Your task to perform on an android device: check battery use Image 0: 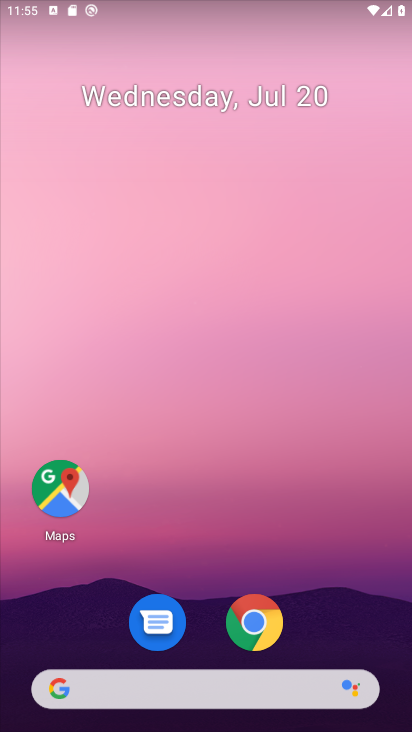
Step 0: press home button
Your task to perform on an android device: check battery use Image 1: 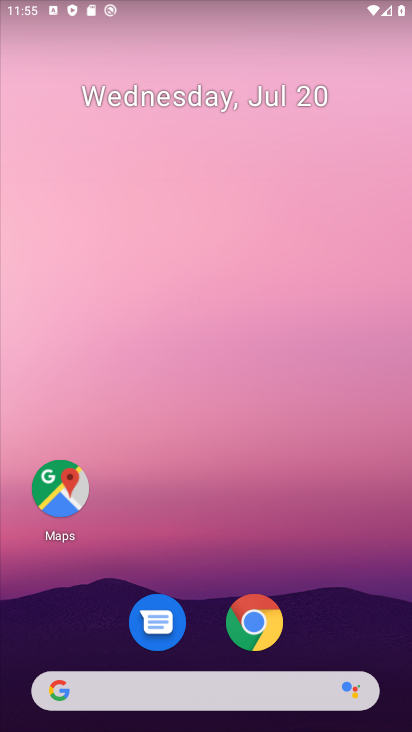
Step 1: drag from (208, 578) to (239, 77)
Your task to perform on an android device: check battery use Image 2: 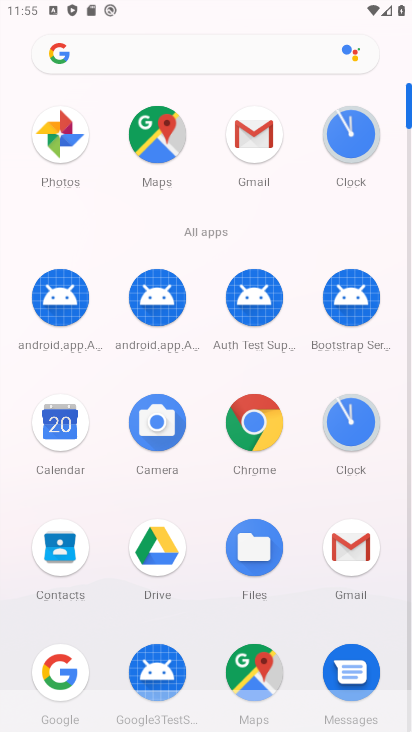
Step 2: drag from (200, 616) to (221, 142)
Your task to perform on an android device: check battery use Image 3: 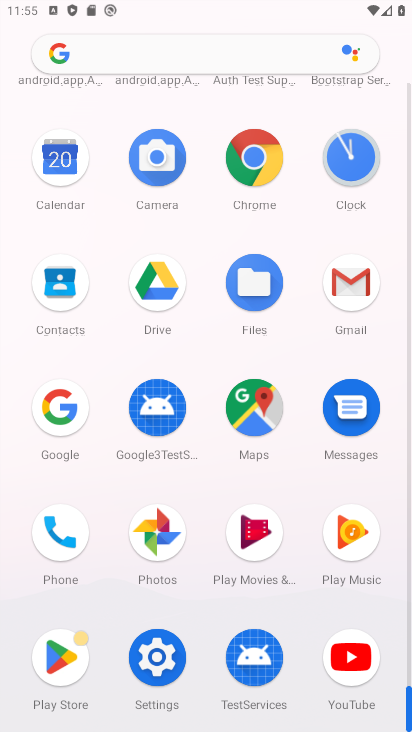
Step 3: click (146, 646)
Your task to perform on an android device: check battery use Image 4: 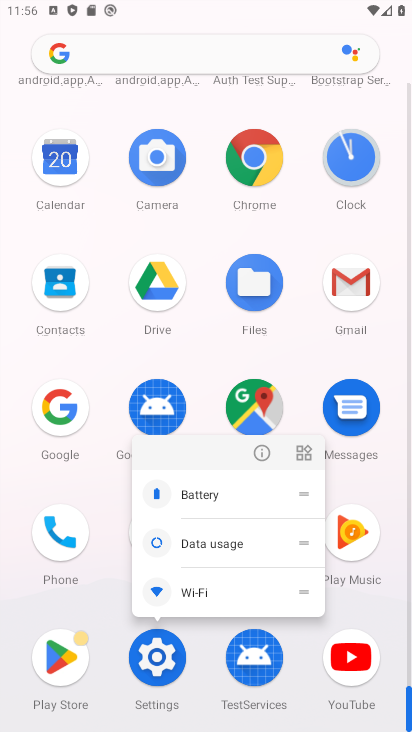
Step 4: click (151, 651)
Your task to perform on an android device: check battery use Image 5: 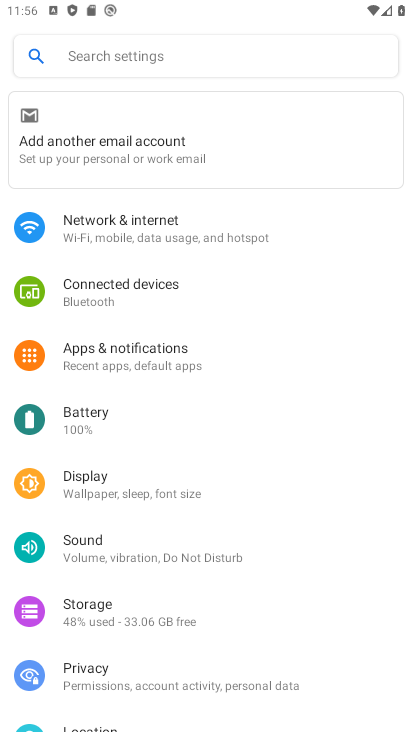
Step 5: click (118, 425)
Your task to perform on an android device: check battery use Image 6: 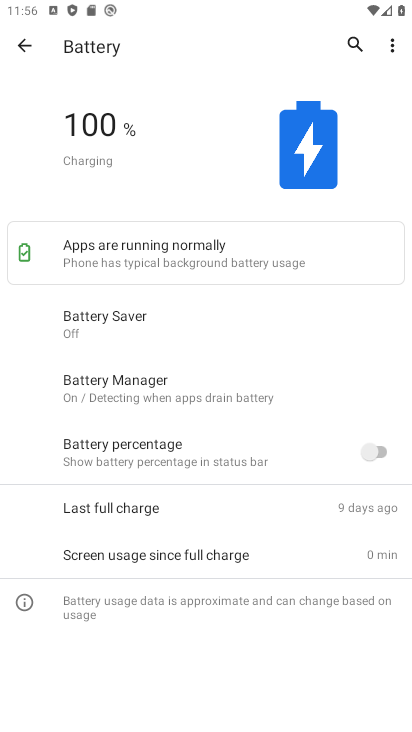
Step 6: click (395, 44)
Your task to perform on an android device: check battery use Image 7: 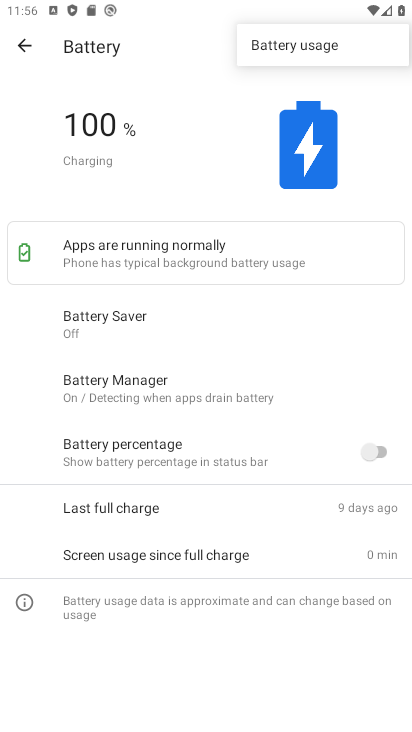
Step 7: click (307, 40)
Your task to perform on an android device: check battery use Image 8: 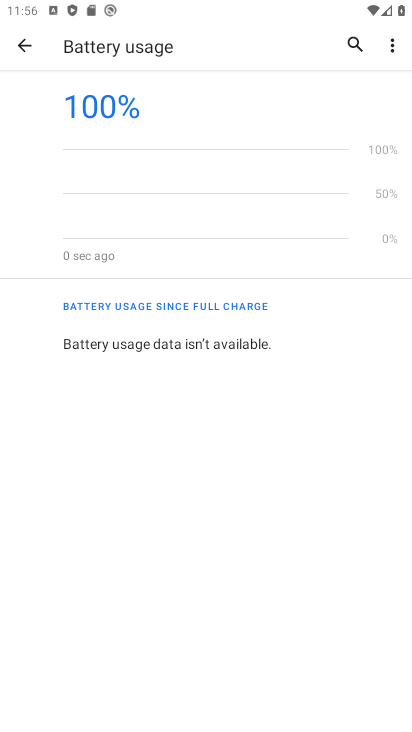
Step 8: task complete